Your task to perform on an android device: turn on improve location accuracy Image 0: 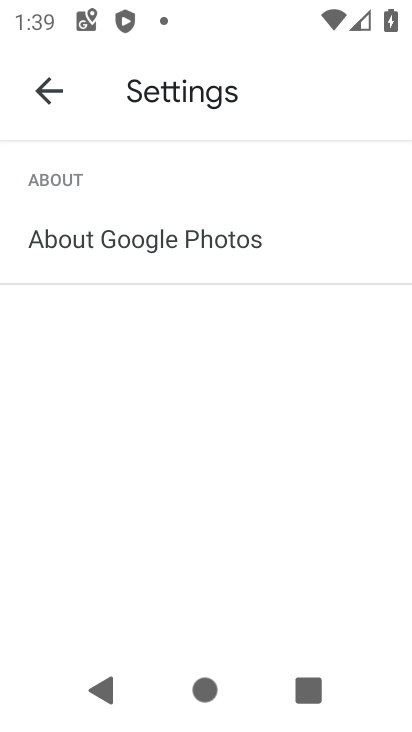
Step 0: press home button
Your task to perform on an android device: turn on improve location accuracy Image 1: 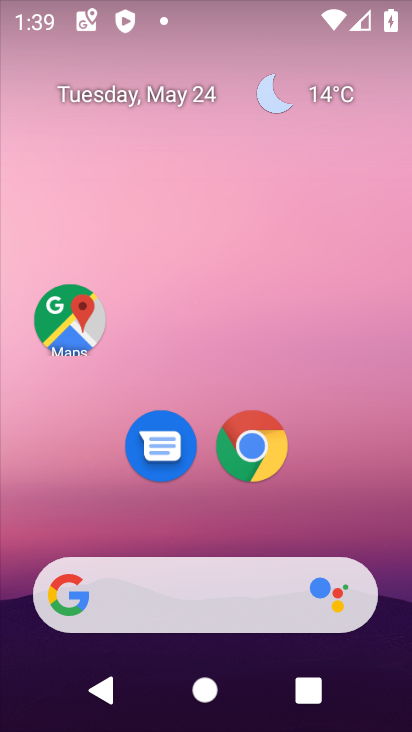
Step 1: drag from (73, 530) to (197, 61)
Your task to perform on an android device: turn on improve location accuracy Image 2: 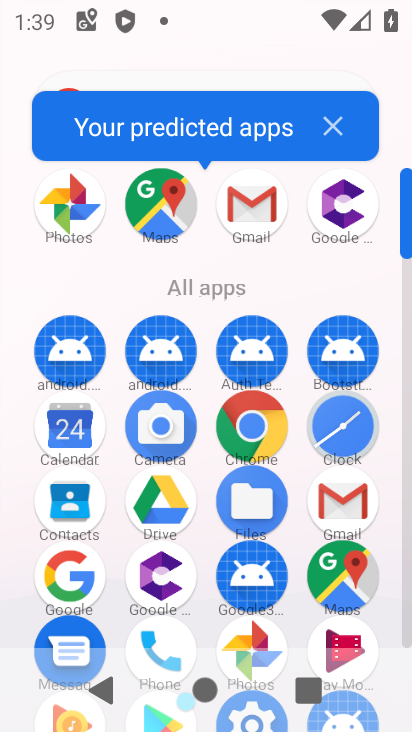
Step 2: drag from (137, 580) to (228, 360)
Your task to perform on an android device: turn on improve location accuracy Image 3: 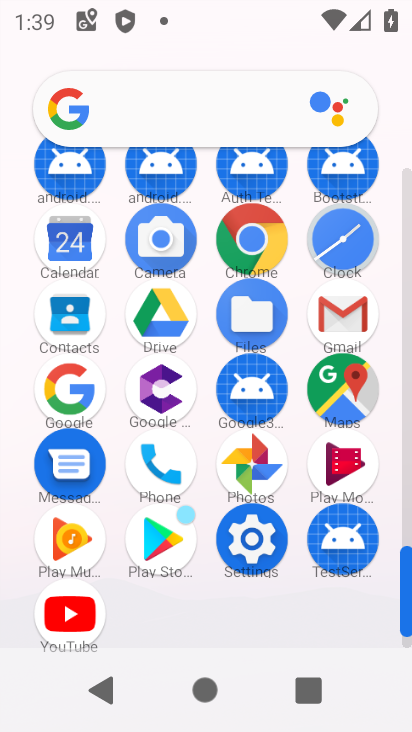
Step 3: click (256, 564)
Your task to perform on an android device: turn on improve location accuracy Image 4: 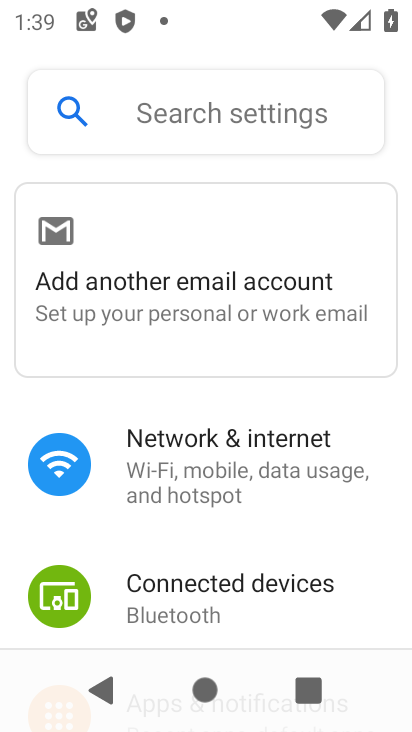
Step 4: drag from (179, 564) to (288, 106)
Your task to perform on an android device: turn on improve location accuracy Image 5: 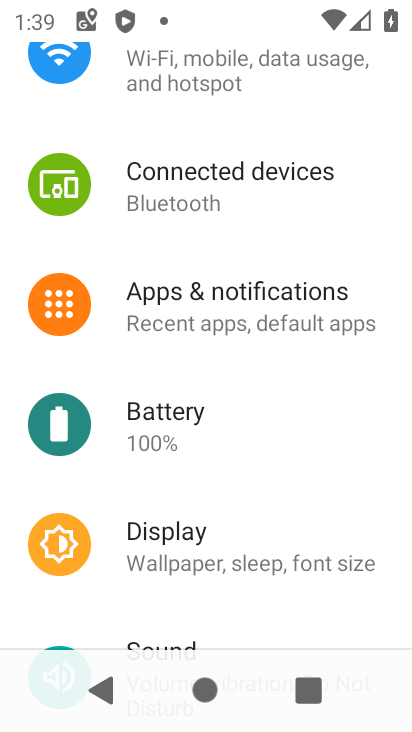
Step 5: drag from (196, 593) to (289, 240)
Your task to perform on an android device: turn on improve location accuracy Image 6: 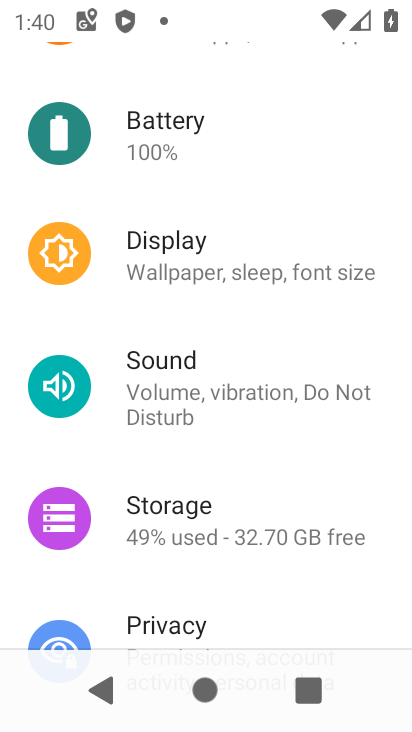
Step 6: drag from (157, 599) to (262, 269)
Your task to perform on an android device: turn on improve location accuracy Image 7: 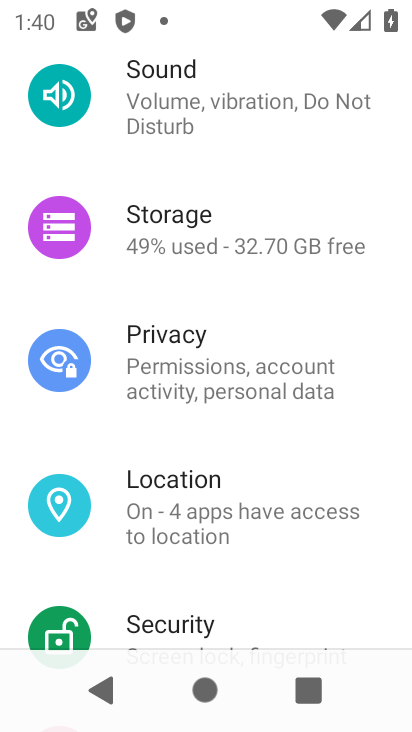
Step 7: click (172, 515)
Your task to perform on an android device: turn on improve location accuracy Image 8: 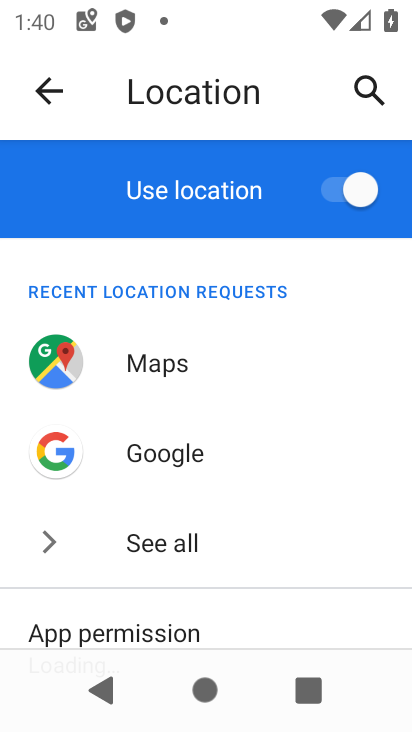
Step 8: drag from (161, 564) to (297, 239)
Your task to perform on an android device: turn on improve location accuracy Image 9: 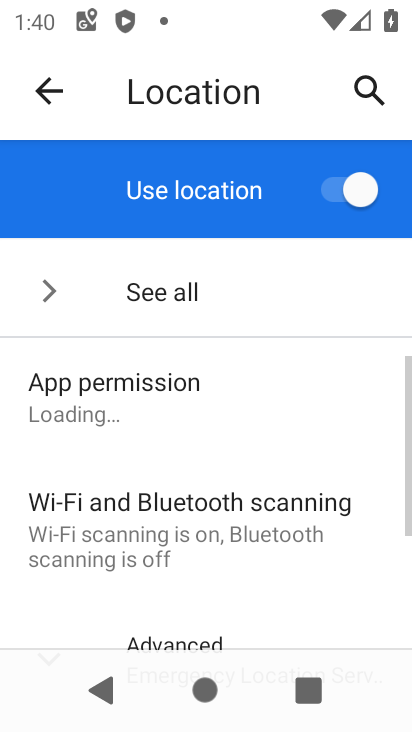
Step 9: drag from (217, 610) to (276, 364)
Your task to perform on an android device: turn on improve location accuracy Image 10: 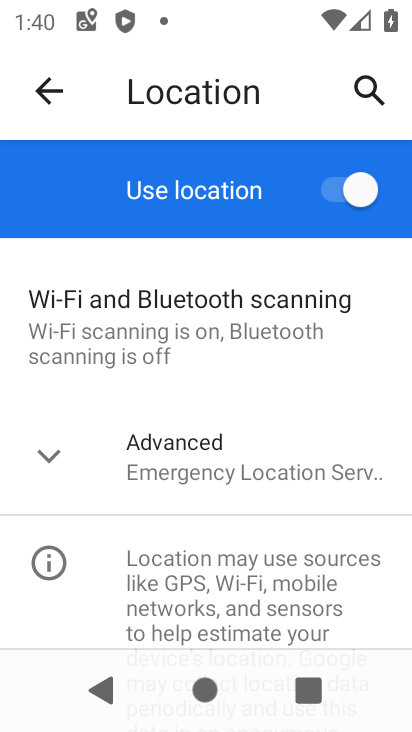
Step 10: click (199, 468)
Your task to perform on an android device: turn on improve location accuracy Image 11: 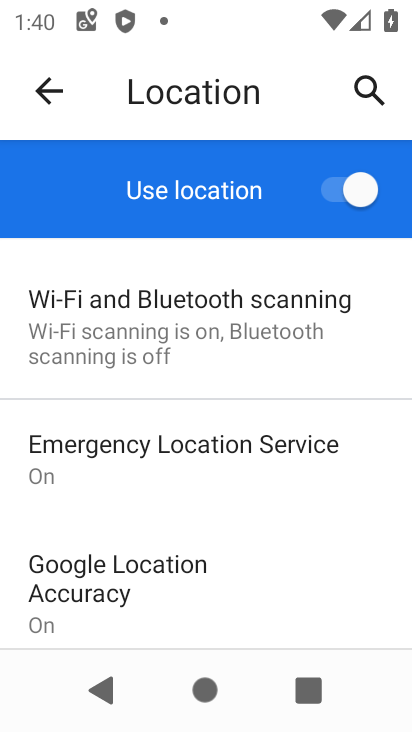
Step 11: drag from (196, 631) to (267, 337)
Your task to perform on an android device: turn on improve location accuracy Image 12: 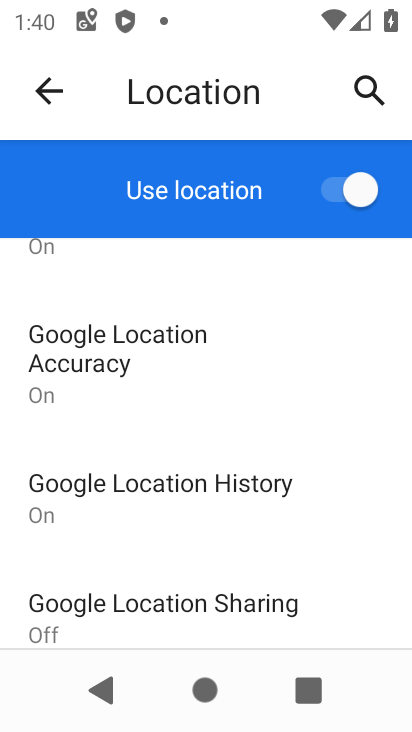
Step 12: drag from (175, 601) to (230, 574)
Your task to perform on an android device: turn on improve location accuracy Image 13: 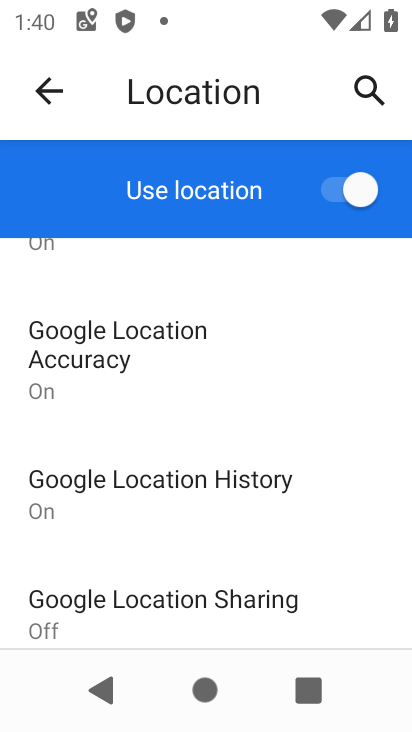
Step 13: click (192, 377)
Your task to perform on an android device: turn on improve location accuracy Image 14: 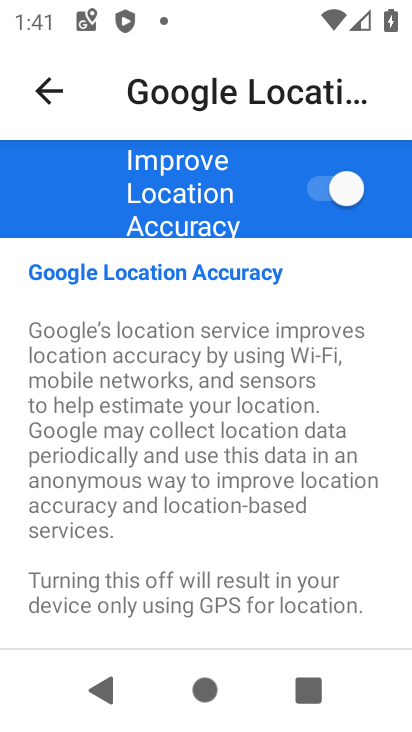
Step 14: task complete